Your task to perform on an android device: Check the news Image 0: 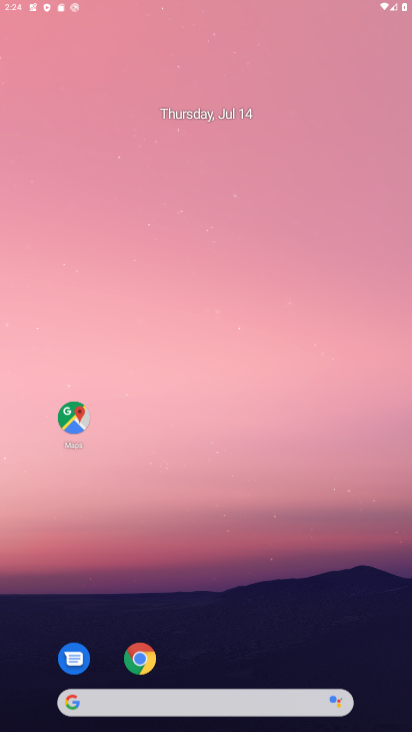
Step 0: press home button
Your task to perform on an android device: Check the news Image 1: 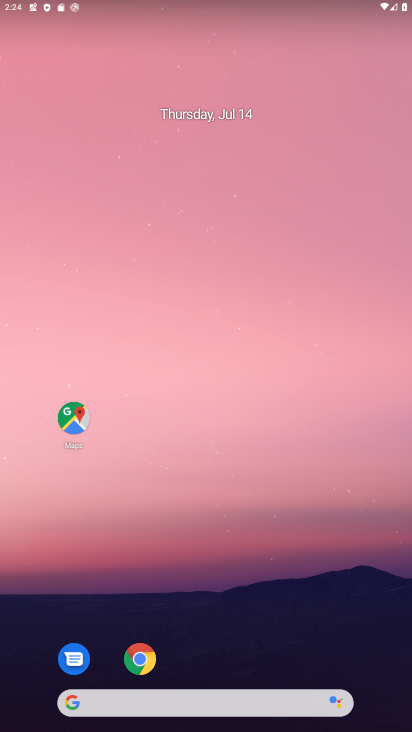
Step 1: click (81, 712)
Your task to perform on an android device: Check the news Image 2: 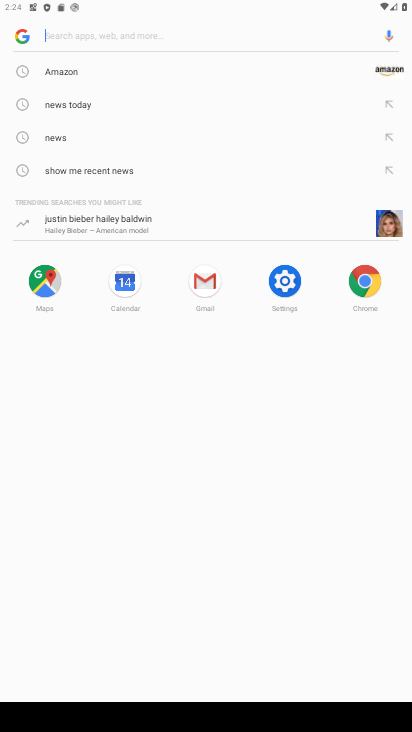
Step 2: click (51, 140)
Your task to perform on an android device: Check the news Image 3: 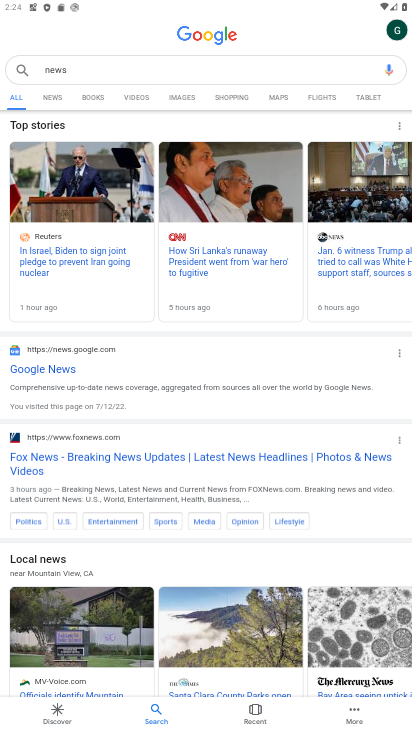
Step 3: task complete